Your task to perform on an android device: turn off smart reply in the gmail app Image 0: 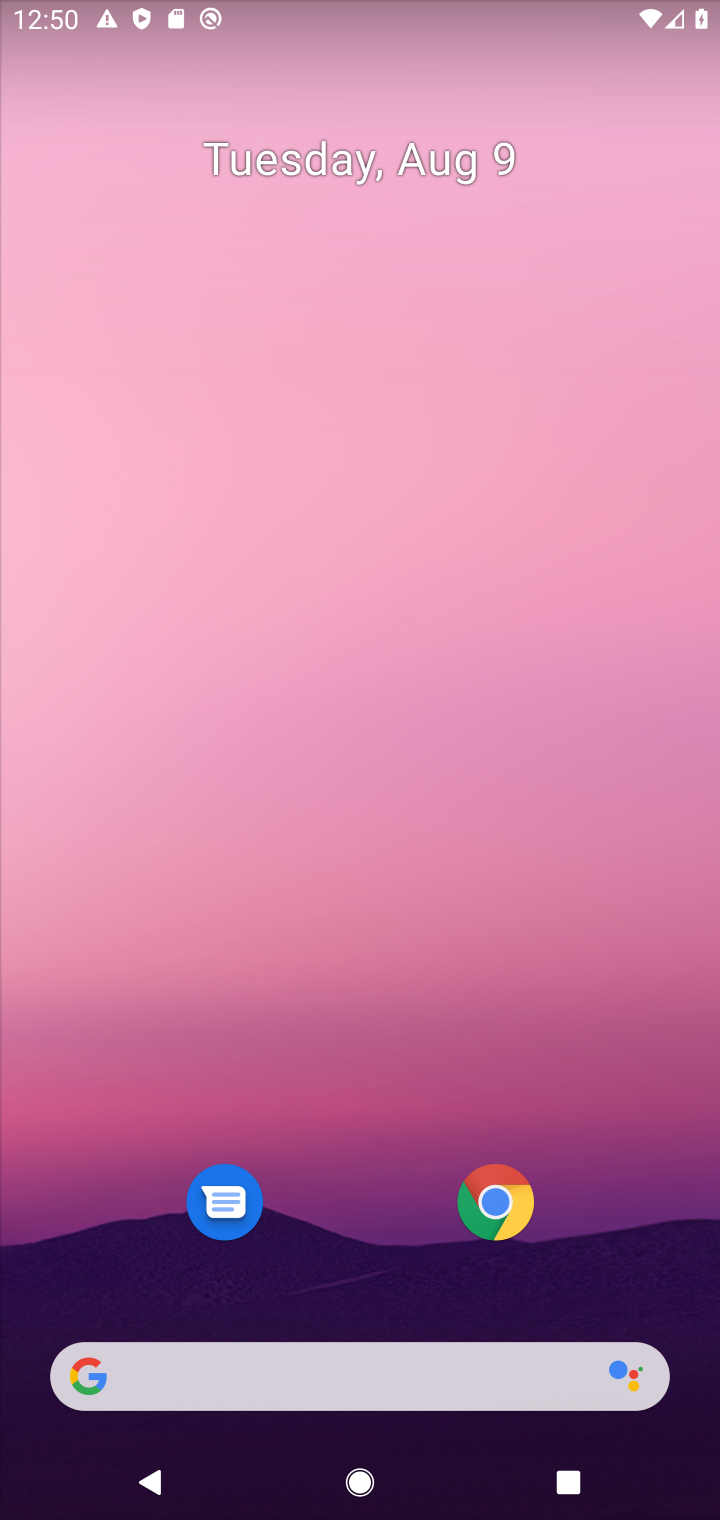
Step 0: drag from (359, 1306) to (327, 63)
Your task to perform on an android device: turn off smart reply in the gmail app Image 1: 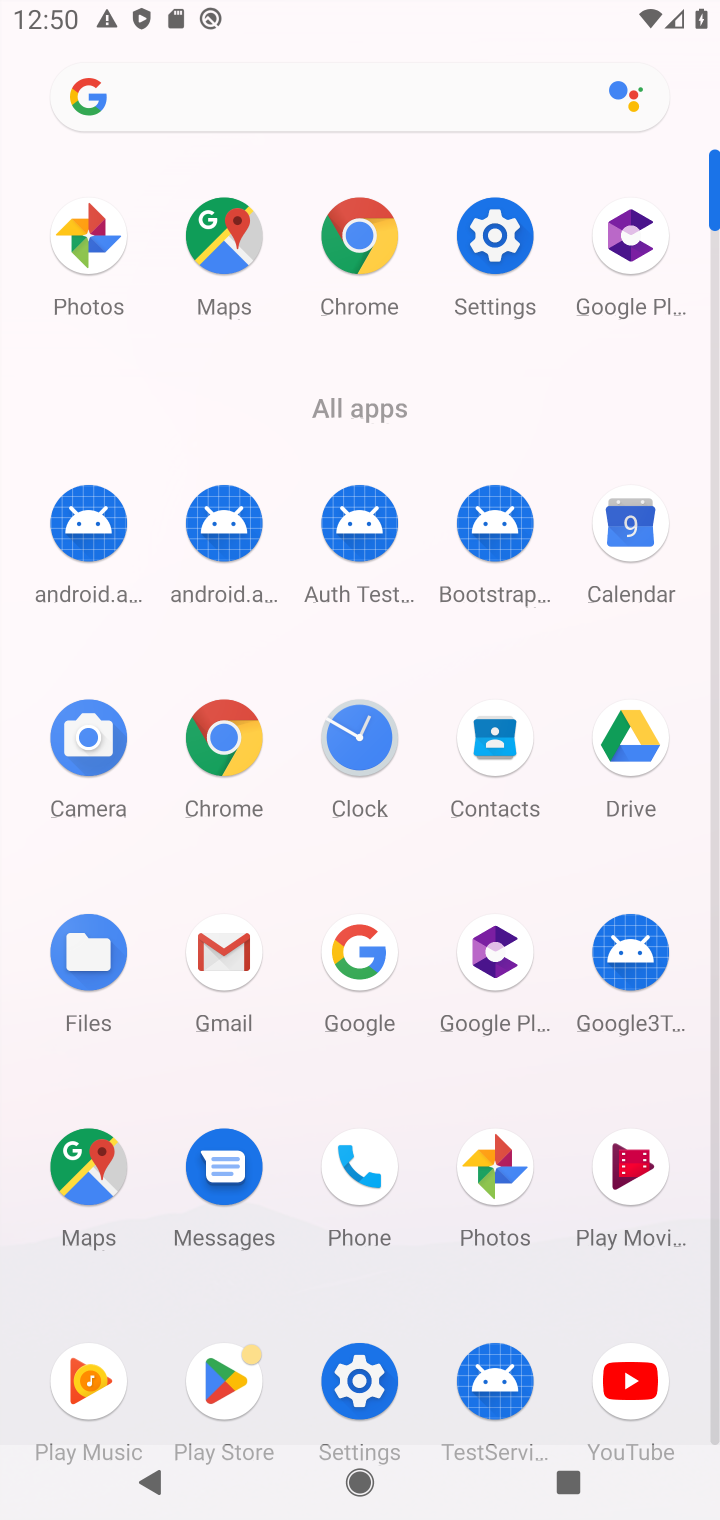
Step 1: click (221, 936)
Your task to perform on an android device: turn off smart reply in the gmail app Image 2: 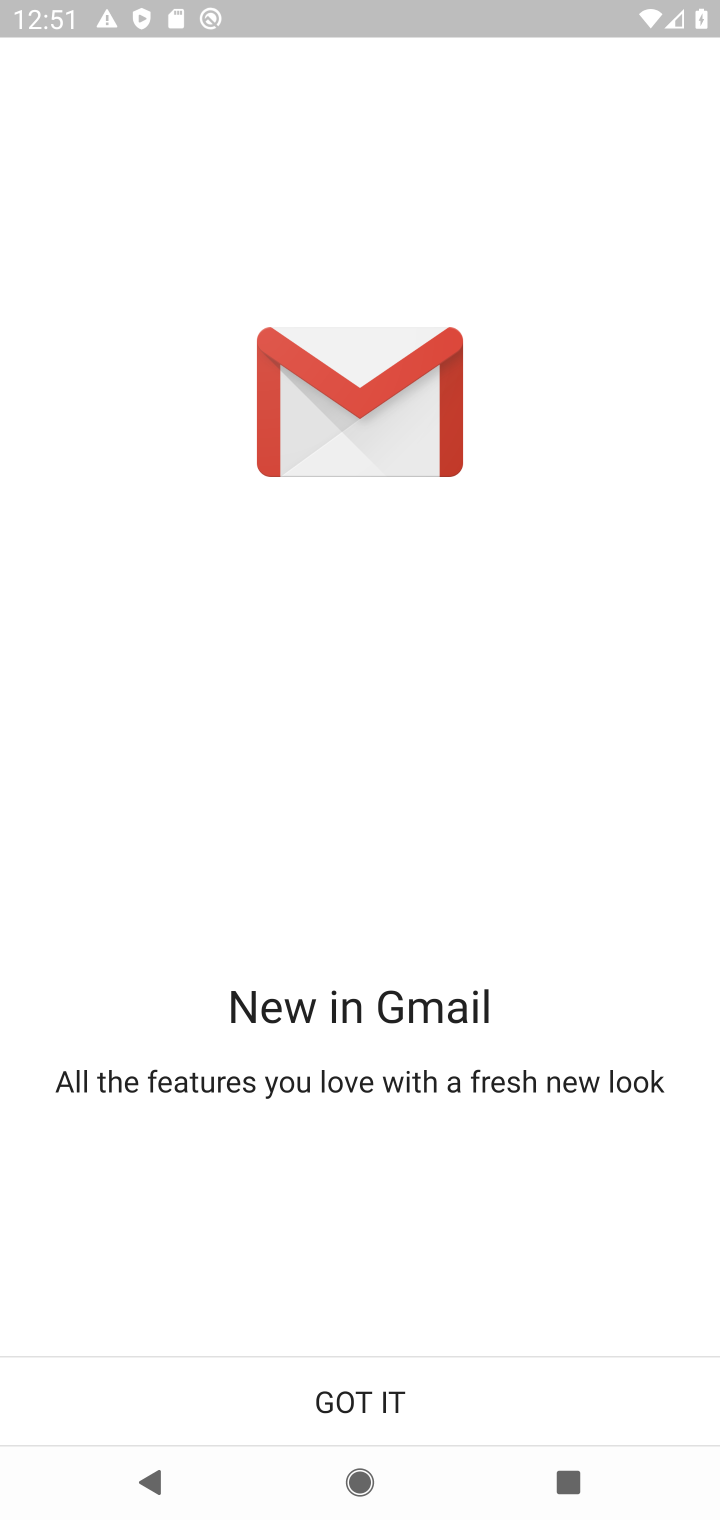
Step 2: click (366, 1396)
Your task to perform on an android device: turn off smart reply in the gmail app Image 3: 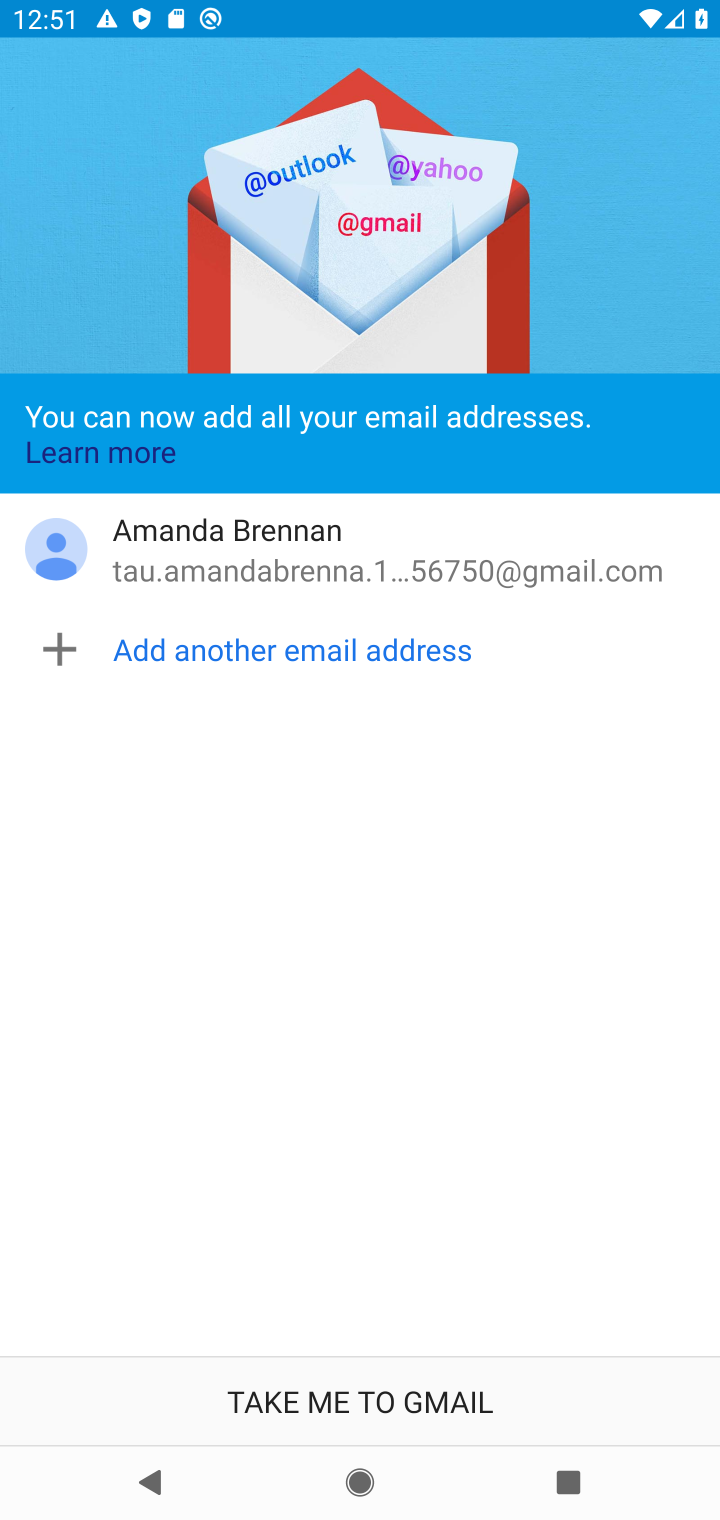
Step 3: click (345, 1399)
Your task to perform on an android device: turn off smart reply in the gmail app Image 4: 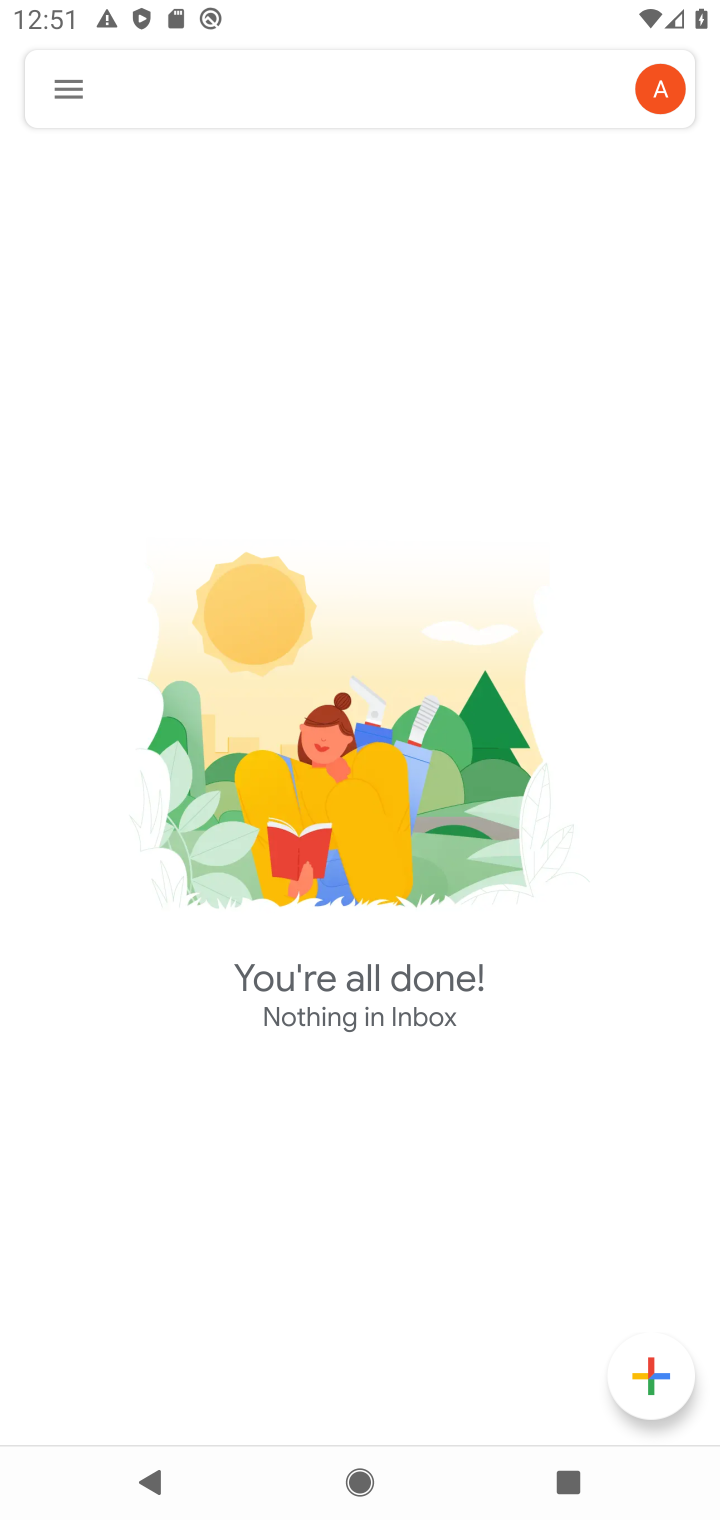
Step 4: click (56, 83)
Your task to perform on an android device: turn off smart reply in the gmail app Image 5: 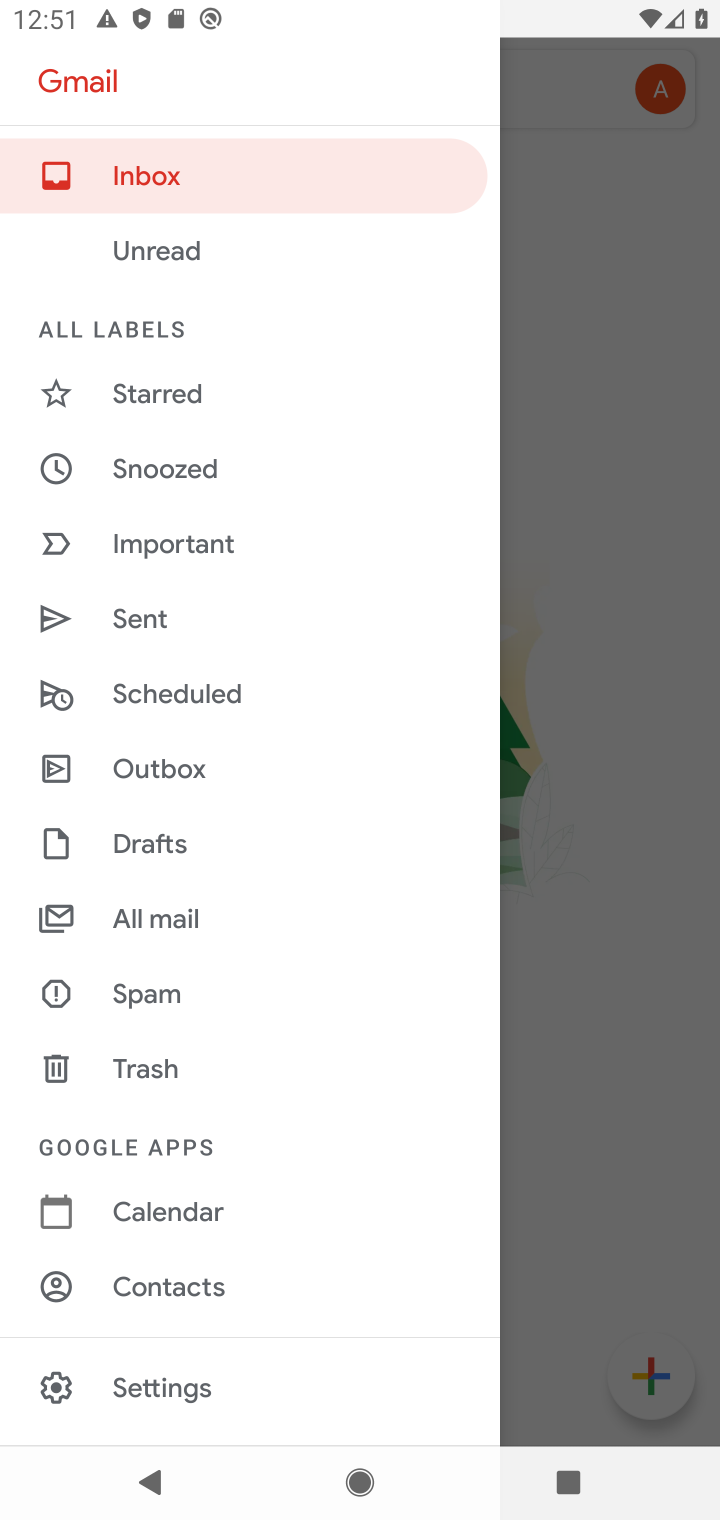
Step 5: click (209, 1372)
Your task to perform on an android device: turn off smart reply in the gmail app Image 6: 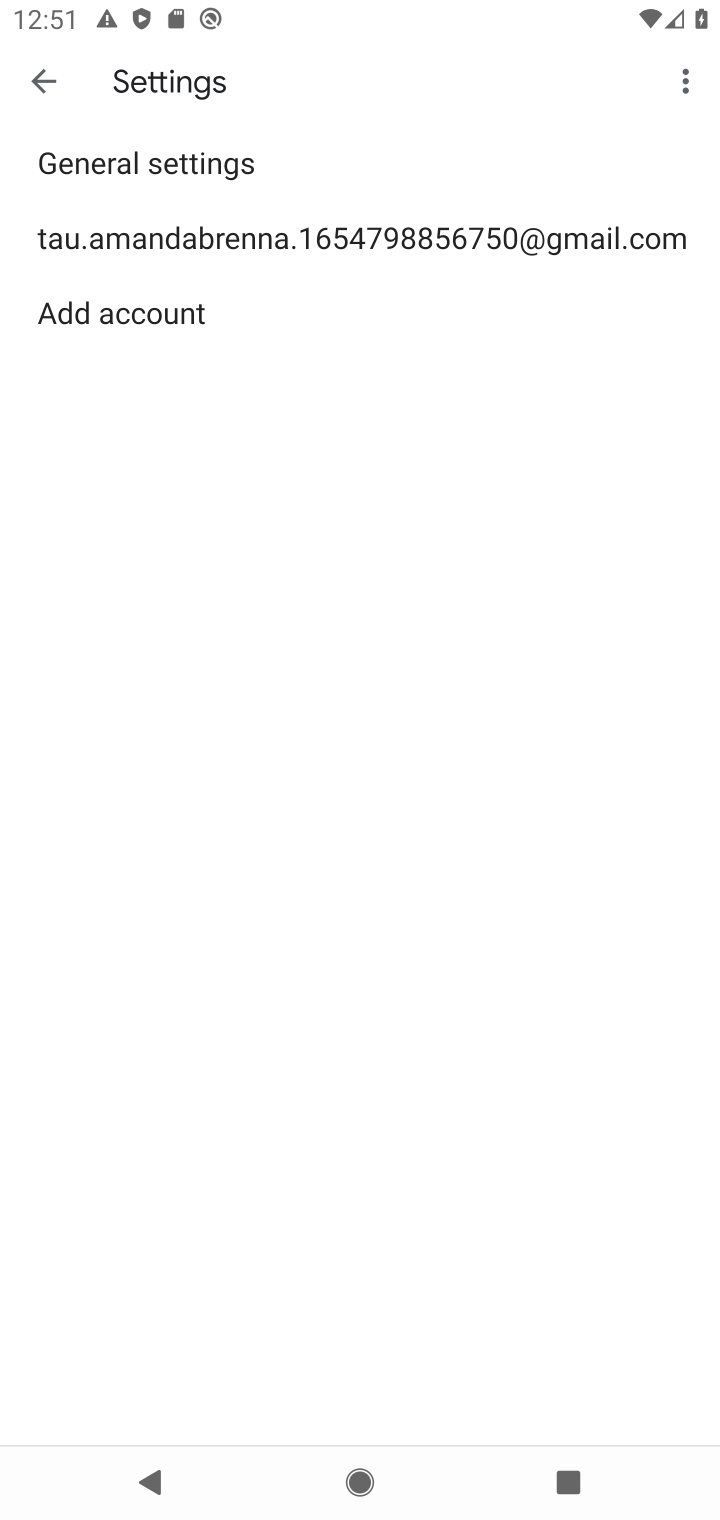
Step 6: click (356, 247)
Your task to perform on an android device: turn off smart reply in the gmail app Image 7: 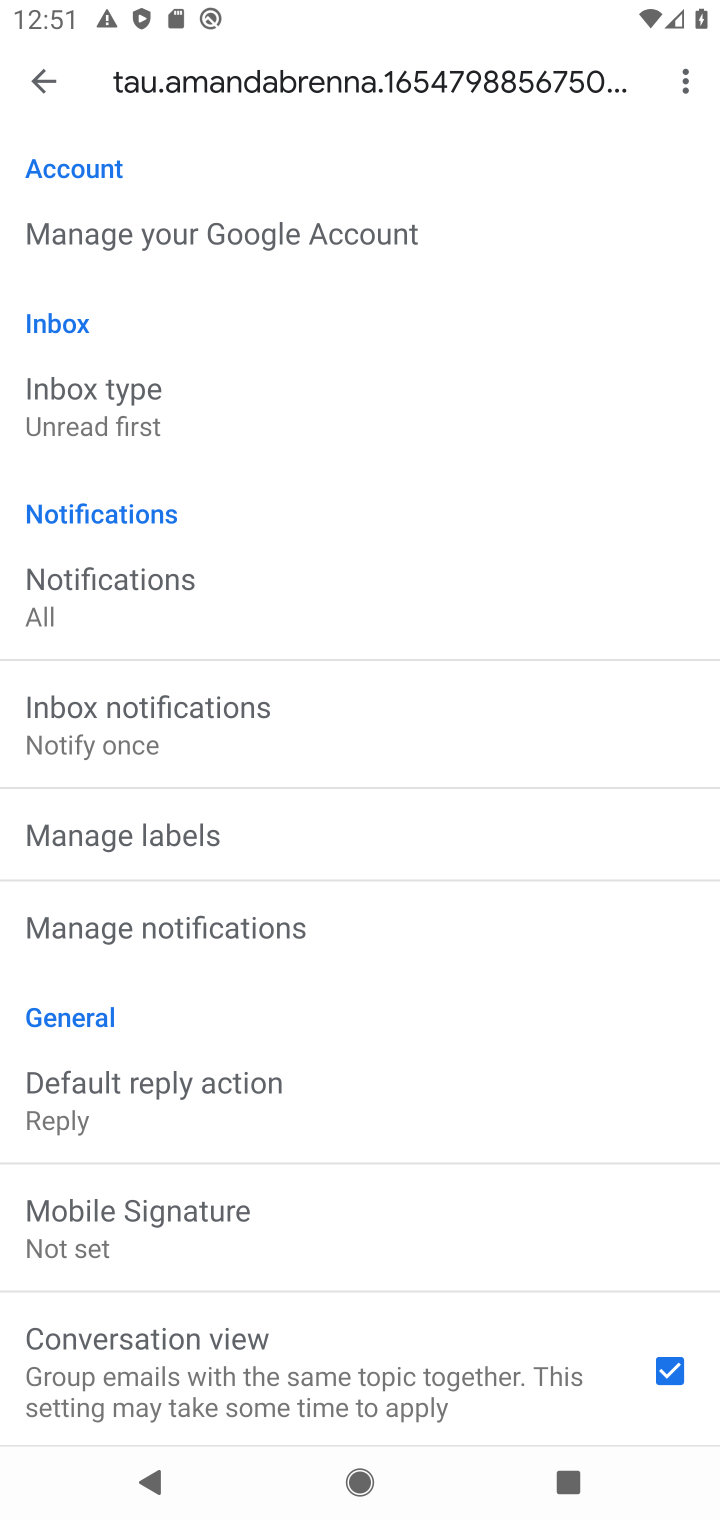
Step 7: drag from (372, 1309) to (410, 226)
Your task to perform on an android device: turn off smart reply in the gmail app Image 8: 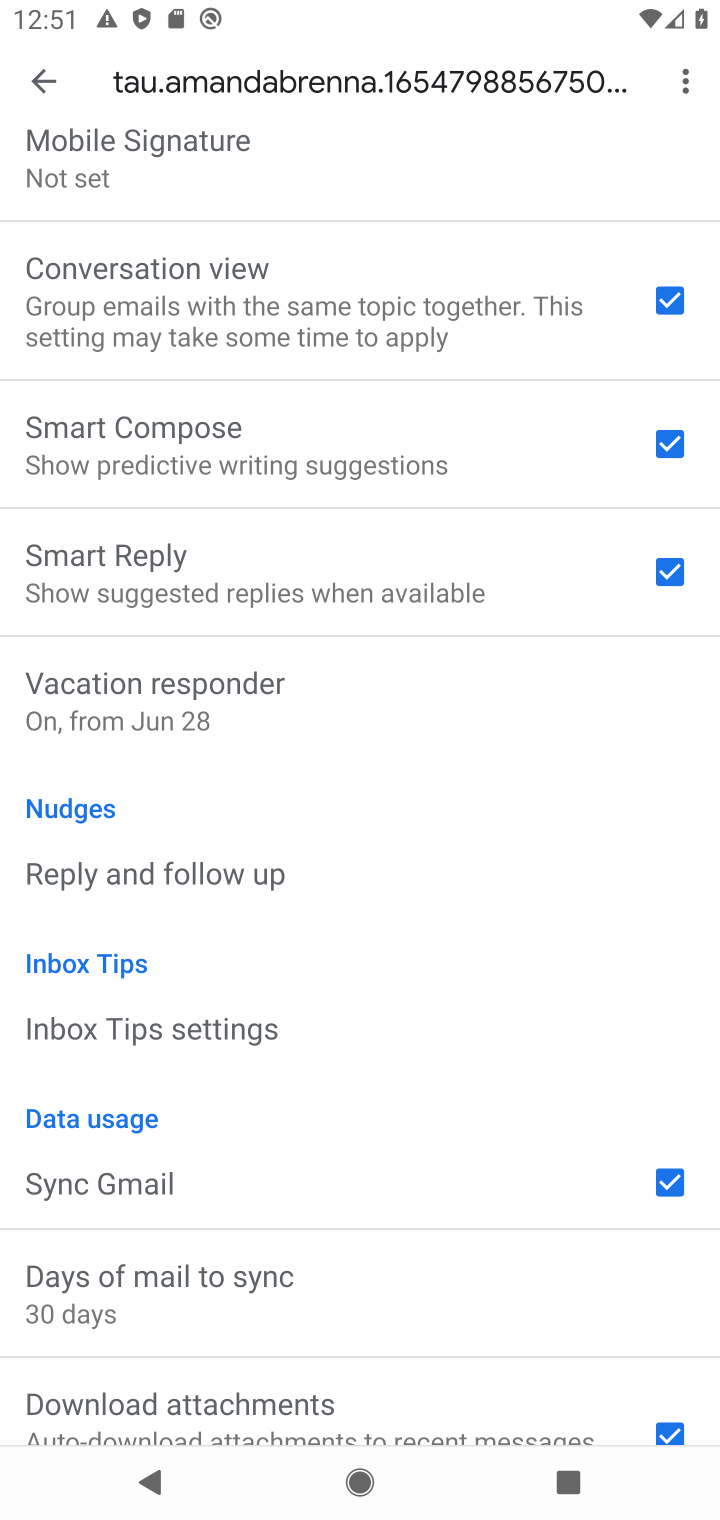
Step 8: click (682, 563)
Your task to perform on an android device: turn off smart reply in the gmail app Image 9: 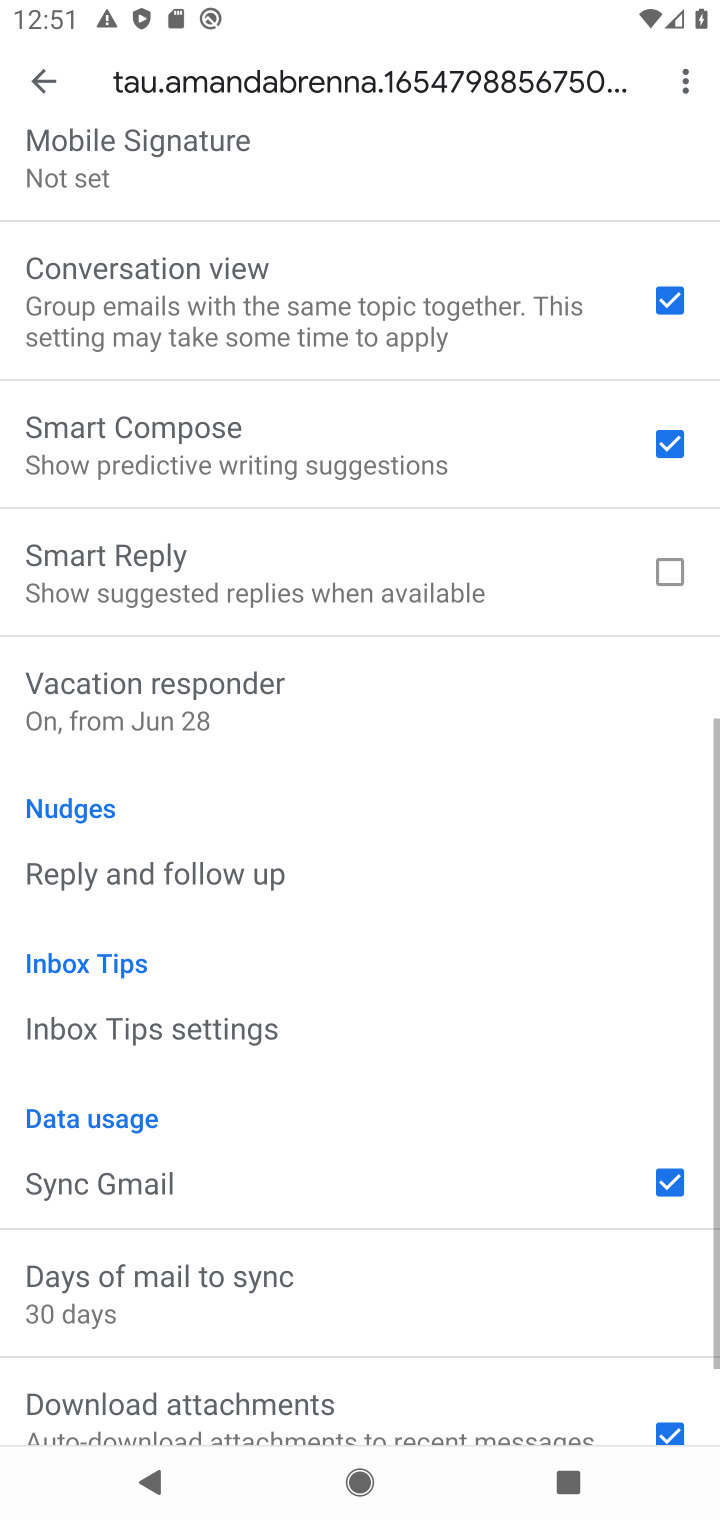
Step 9: task complete